Your task to perform on an android device: turn off location Image 0: 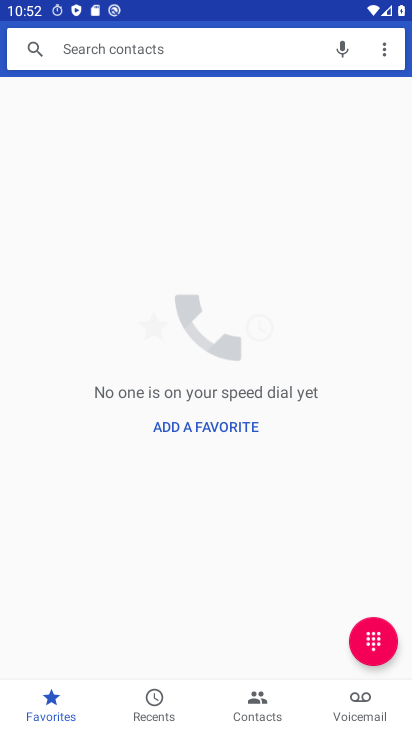
Step 0: press home button
Your task to perform on an android device: turn off location Image 1: 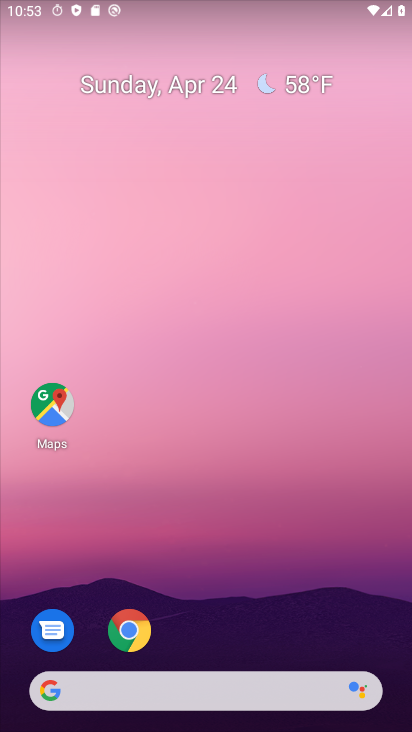
Step 1: drag from (150, 645) to (337, 1)
Your task to perform on an android device: turn off location Image 2: 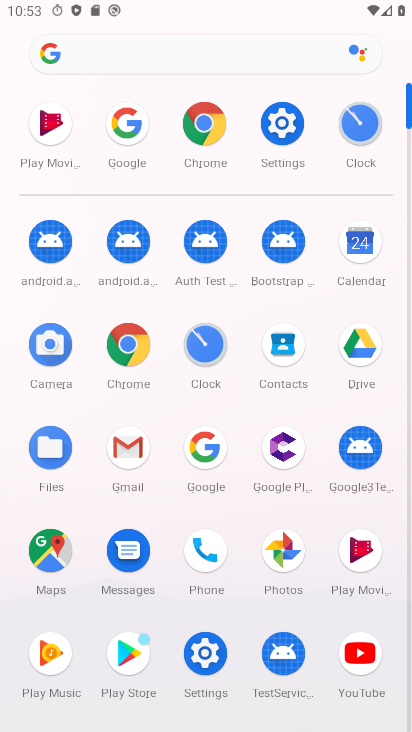
Step 2: click (307, 133)
Your task to perform on an android device: turn off location Image 3: 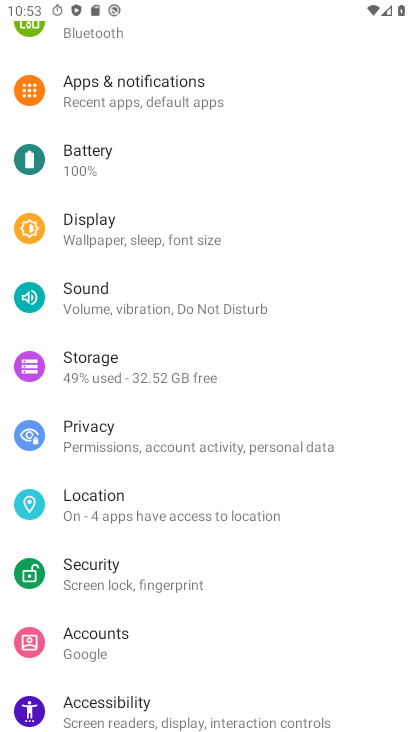
Step 3: drag from (158, 253) to (123, 504)
Your task to perform on an android device: turn off location Image 4: 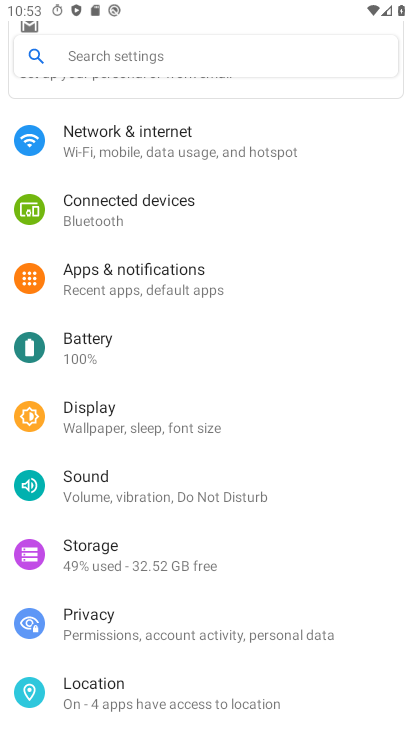
Step 4: click (155, 688)
Your task to perform on an android device: turn off location Image 5: 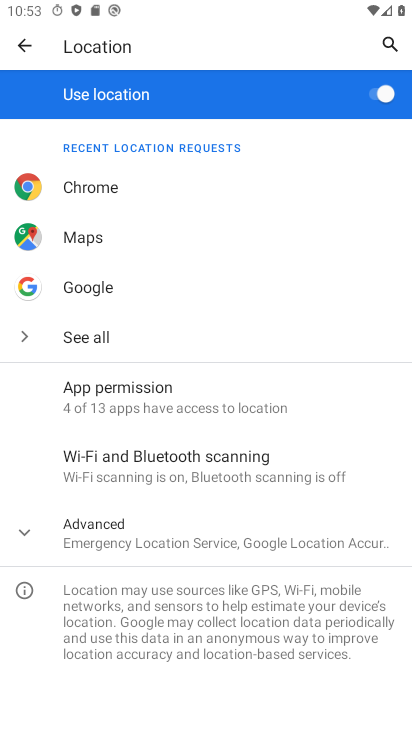
Step 5: click (381, 93)
Your task to perform on an android device: turn off location Image 6: 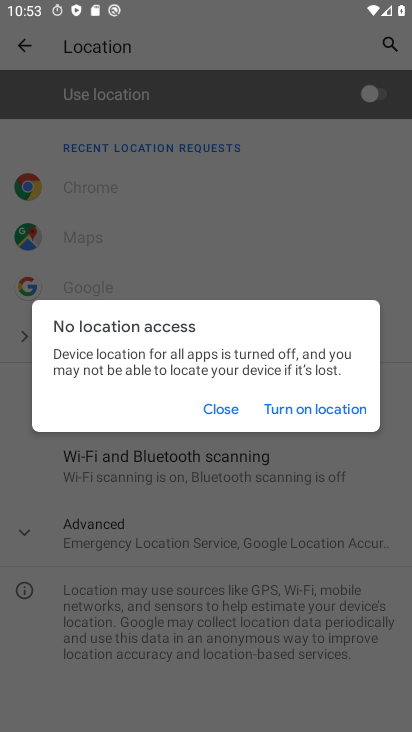
Step 6: click (224, 403)
Your task to perform on an android device: turn off location Image 7: 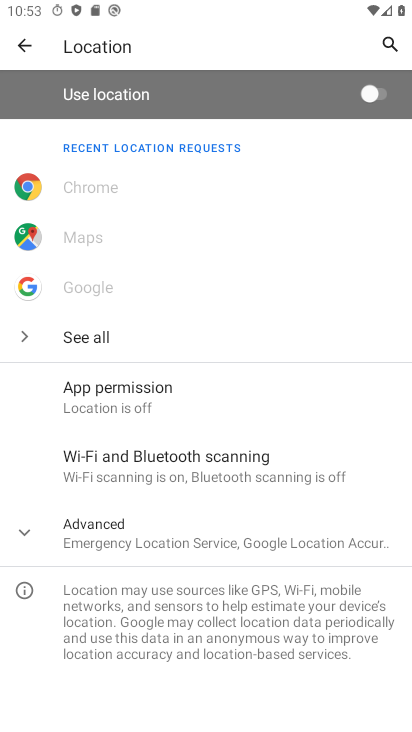
Step 7: task complete